Your task to perform on an android device: open the mobile data screen to see how much data has been used Image 0: 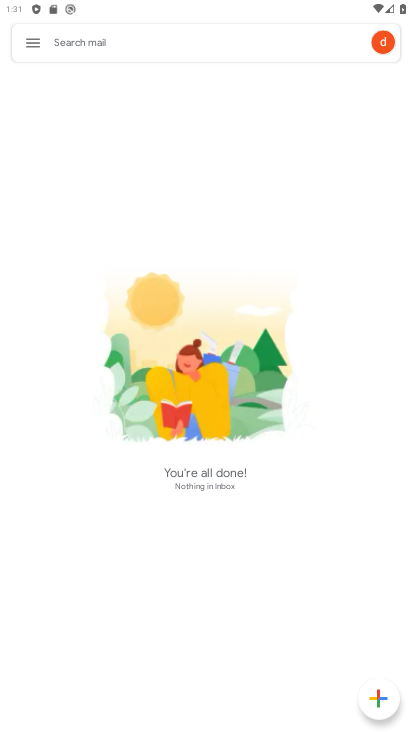
Step 0: press home button
Your task to perform on an android device: open the mobile data screen to see how much data has been used Image 1: 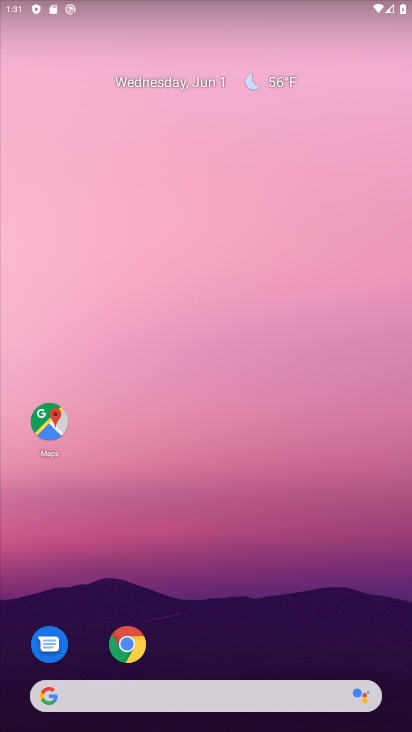
Step 1: drag from (235, 690) to (237, 421)
Your task to perform on an android device: open the mobile data screen to see how much data has been used Image 2: 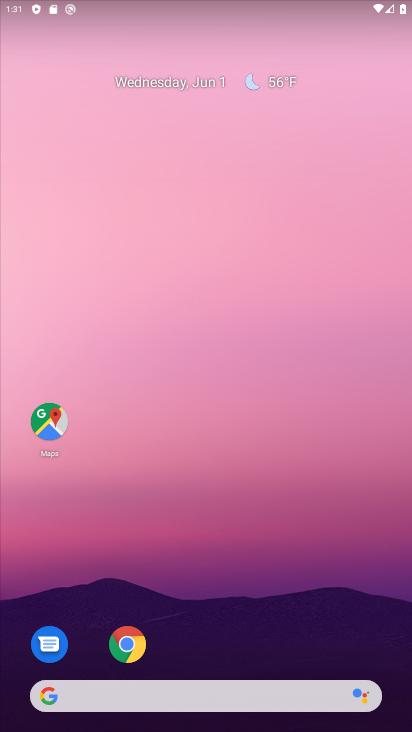
Step 2: drag from (267, 685) to (267, 256)
Your task to perform on an android device: open the mobile data screen to see how much data has been used Image 3: 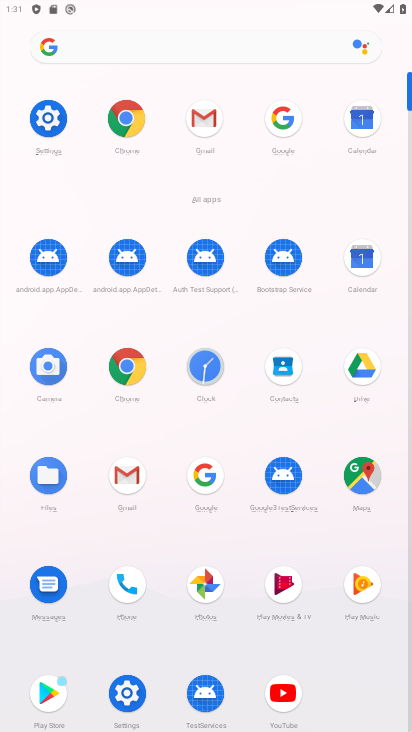
Step 3: click (48, 121)
Your task to perform on an android device: open the mobile data screen to see how much data has been used Image 4: 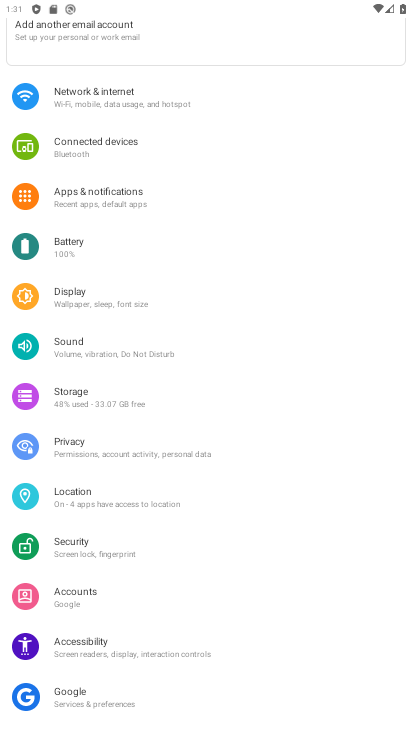
Step 4: click (76, 95)
Your task to perform on an android device: open the mobile data screen to see how much data has been used Image 5: 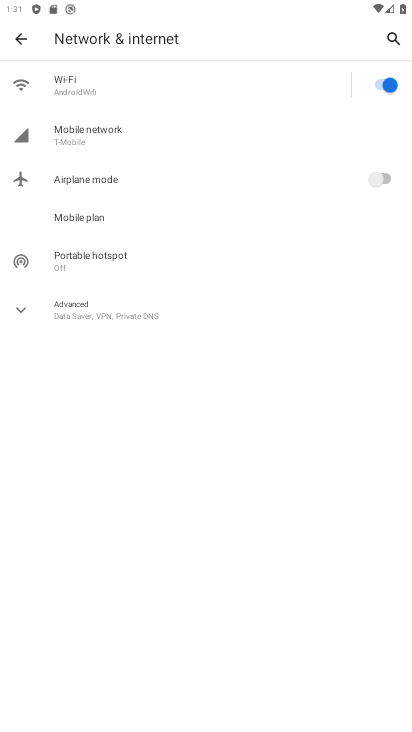
Step 5: click (92, 141)
Your task to perform on an android device: open the mobile data screen to see how much data has been used Image 6: 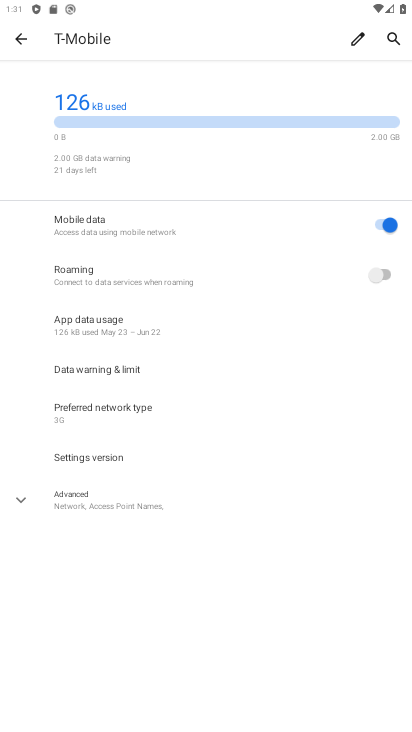
Step 6: task complete